Your task to perform on an android device: add a label to a message in the gmail app Image 0: 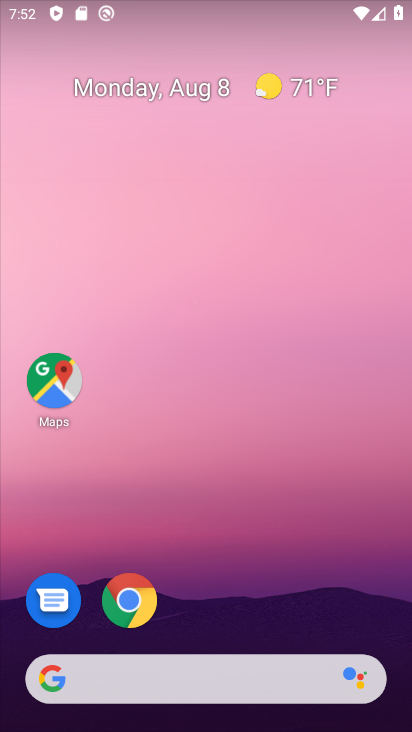
Step 0: drag from (202, 638) to (276, 12)
Your task to perform on an android device: add a label to a message in the gmail app Image 1: 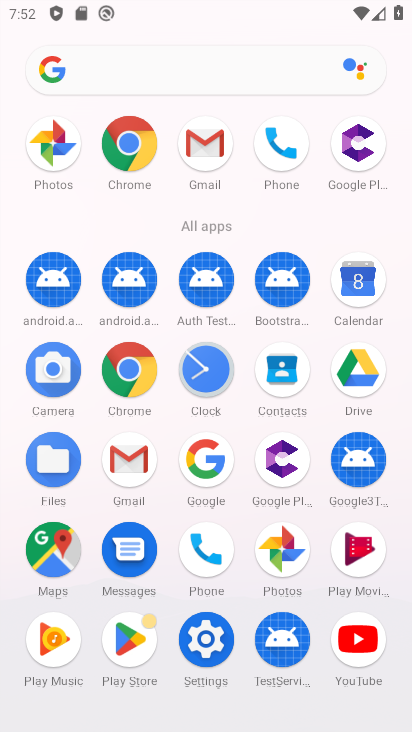
Step 1: click (114, 459)
Your task to perform on an android device: add a label to a message in the gmail app Image 2: 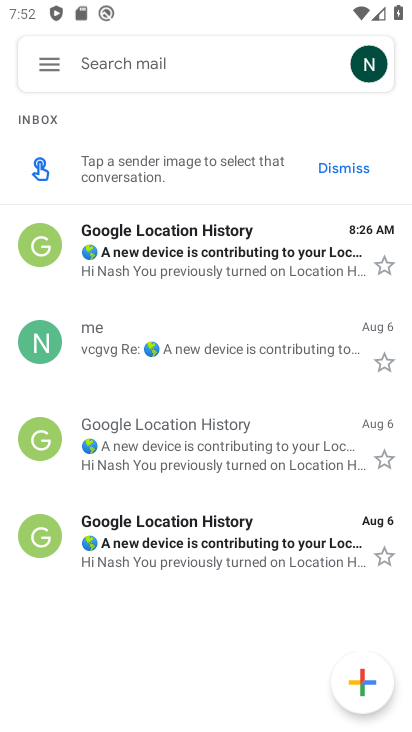
Step 2: drag from (172, 269) to (226, 269)
Your task to perform on an android device: add a label to a message in the gmail app Image 3: 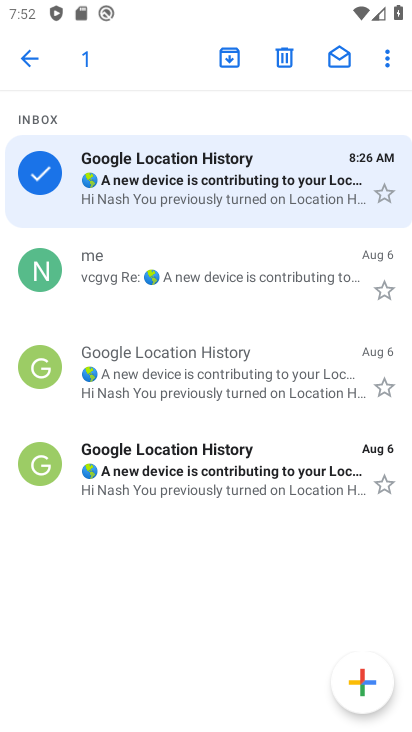
Step 3: click (387, 71)
Your task to perform on an android device: add a label to a message in the gmail app Image 4: 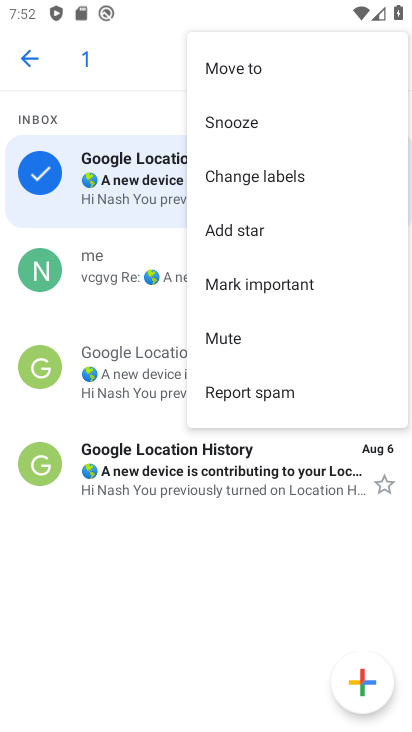
Step 4: click (239, 171)
Your task to perform on an android device: add a label to a message in the gmail app Image 5: 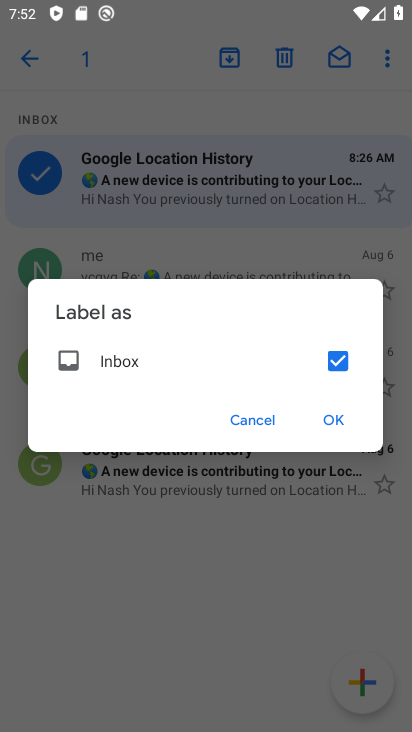
Step 5: click (338, 356)
Your task to perform on an android device: add a label to a message in the gmail app Image 6: 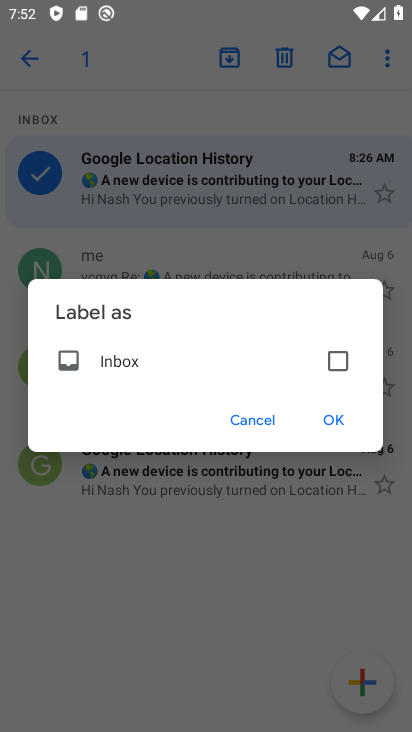
Step 6: click (330, 418)
Your task to perform on an android device: add a label to a message in the gmail app Image 7: 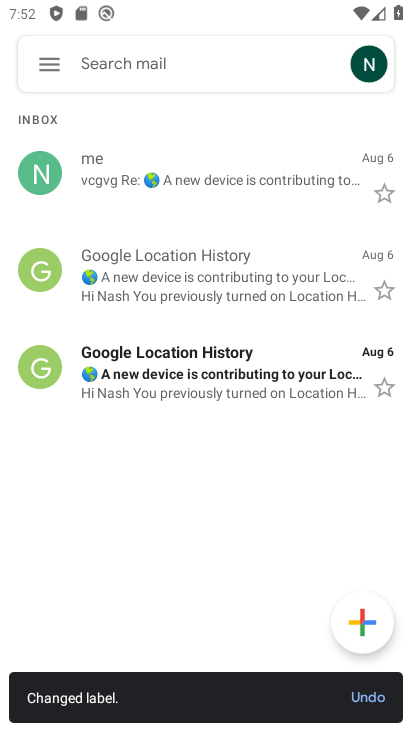
Step 7: click (185, 676)
Your task to perform on an android device: add a label to a message in the gmail app Image 8: 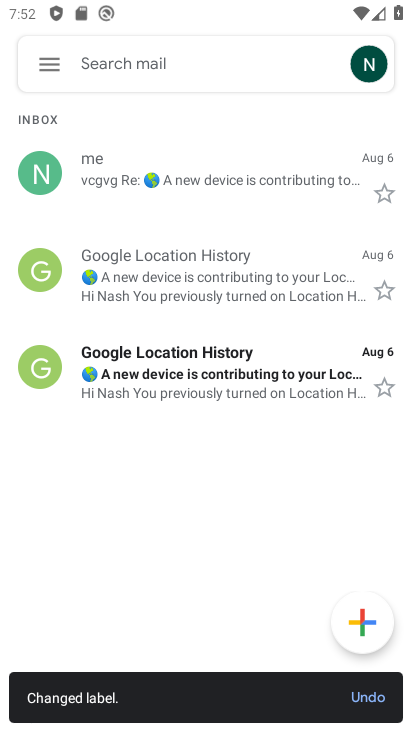
Step 8: task complete